Your task to perform on an android device: open a new tab in the chrome app Image 0: 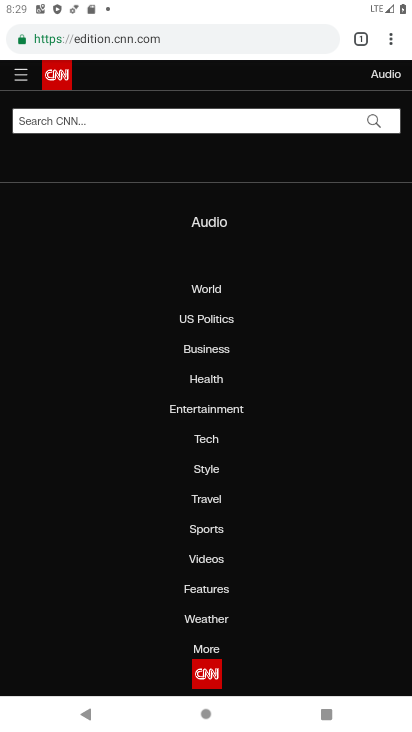
Step 0: press home button
Your task to perform on an android device: open a new tab in the chrome app Image 1: 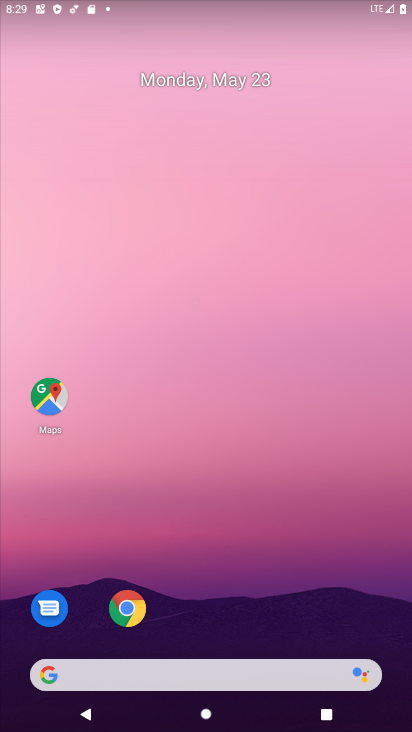
Step 1: click (137, 605)
Your task to perform on an android device: open a new tab in the chrome app Image 2: 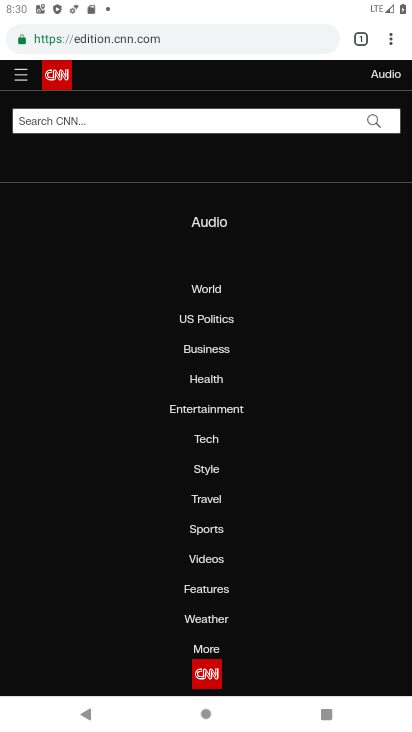
Step 2: task complete